Your task to perform on an android device: Go to sound settings Image 0: 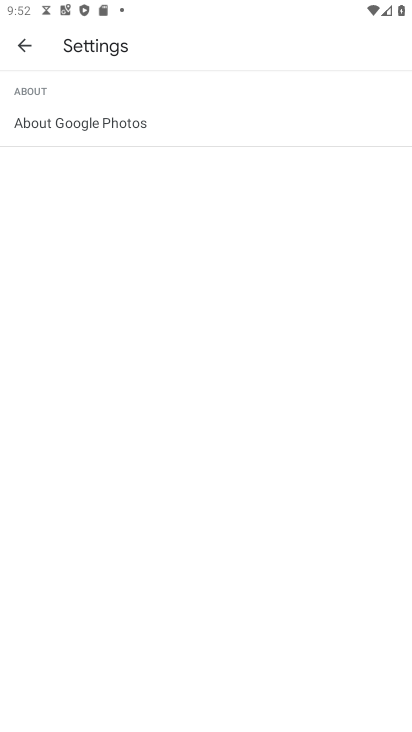
Step 0: press home button
Your task to perform on an android device: Go to sound settings Image 1: 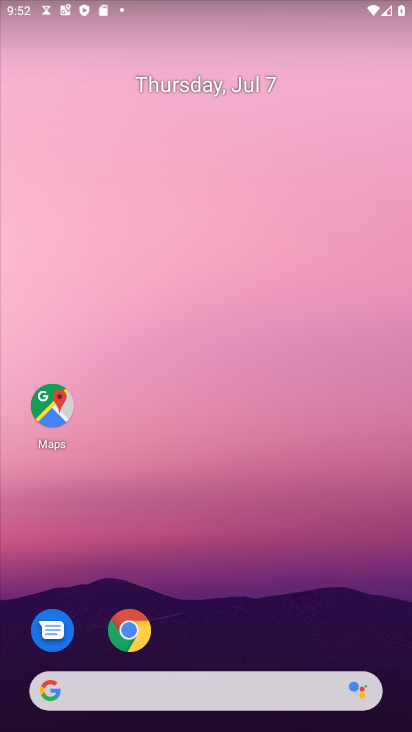
Step 1: drag from (210, 675) to (236, 331)
Your task to perform on an android device: Go to sound settings Image 2: 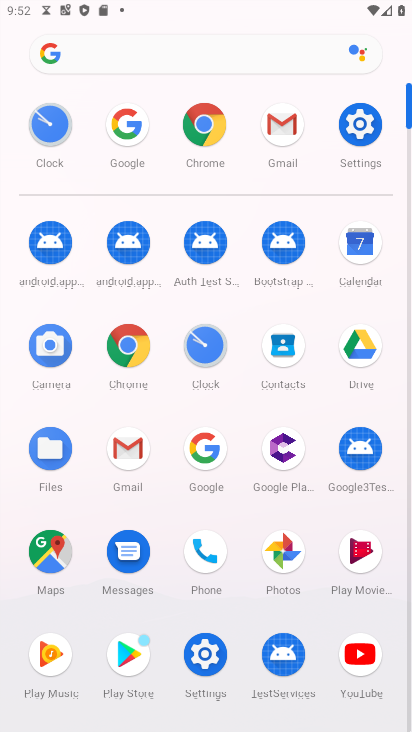
Step 2: click (365, 128)
Your task to perform on an android device: Go to sound settings Image 3: 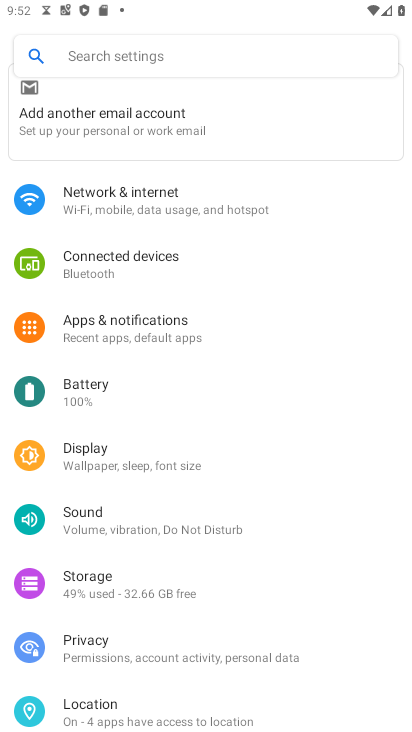
Step 3: click (90, 525)
Your task to perform on an android device: Go to sound settings Image 4: 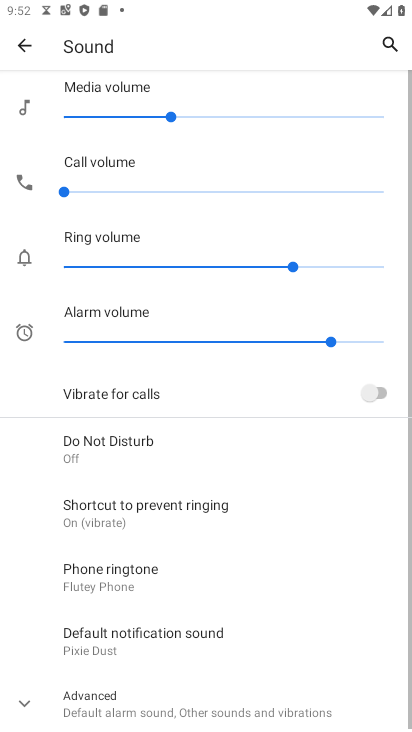
Step 4: drag from (189, 702) to (206, 269)
Your task to perform on an android device: Go to sound settings Image 5: 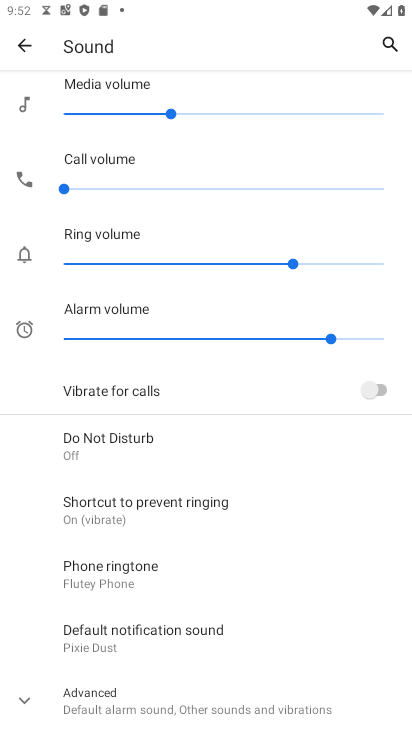
Step 5: click (120, 700)
Your task to perform on an android device: Go to sound settings Image 6: 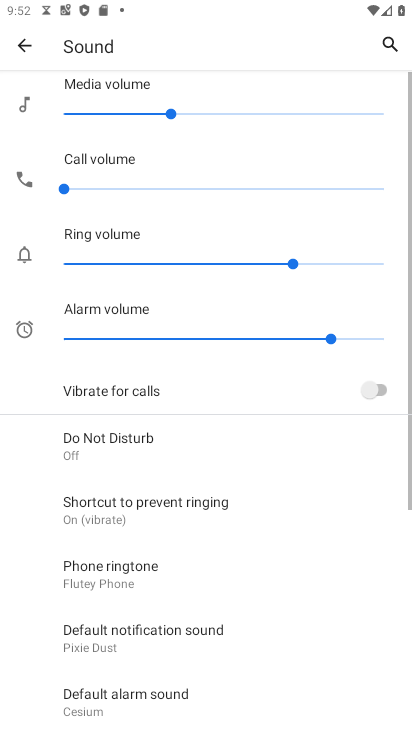
Step 6: task complete